Your task to perform on an android device: open a bookmark in the chrome app Image 0: 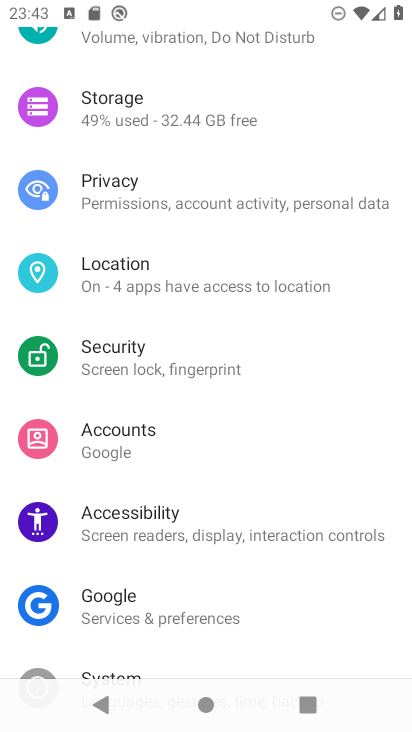
Step 0: press home button
Your task to perform on an android device: open a bookmark in the chrome app Image 1: 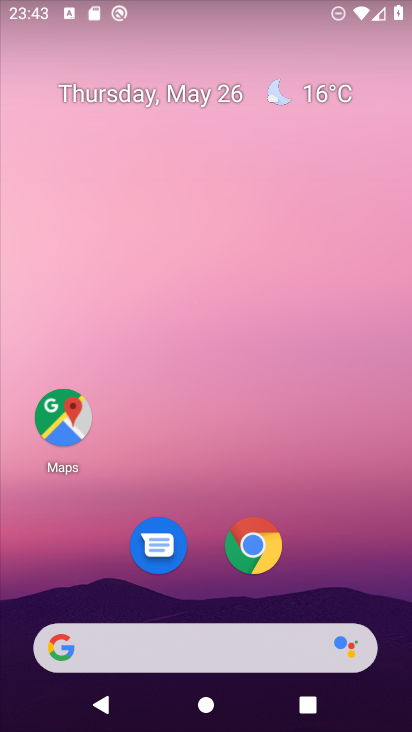
Step 1: click (251, 544)
Your task to perform on an android device: open a bookmark in the chrome app Image 2: 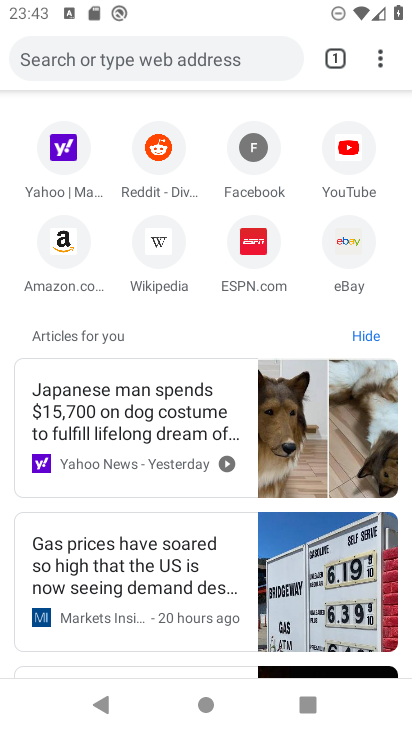
Step 2: drag from (381, 62) to (202, 228)
Your task to perform on an android device: open a bookmark in the chrome app Image 3: 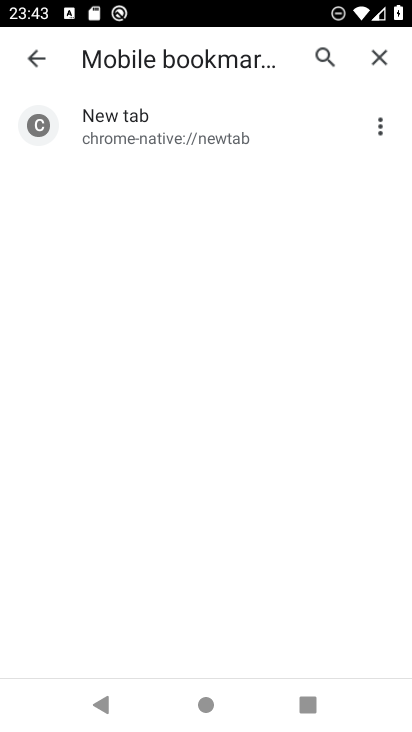
Step 3: click (137, 128)
Your task to perform on an android device: open a bookmark in the chrome app Image 4: 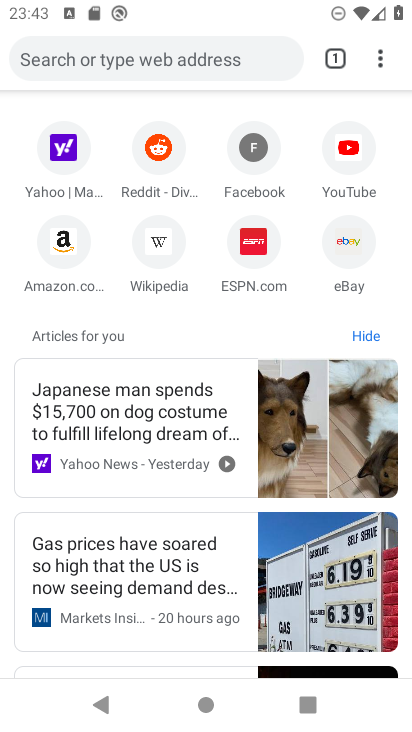
Step 4: task complete